Your task to perform on an android device: Open location settings Image 0: 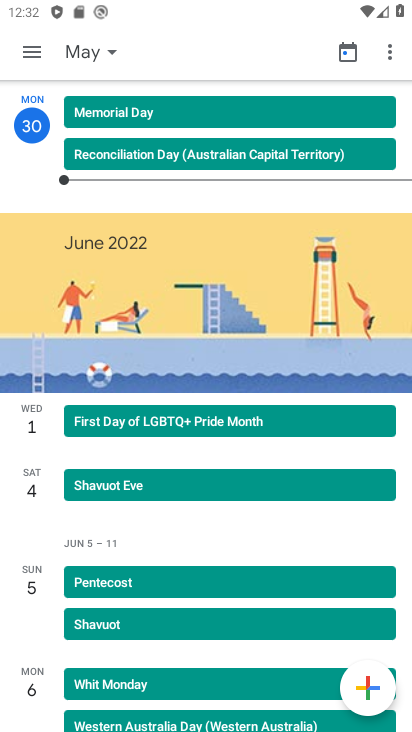
Step 0: press home button
Your task to perform on an android device: Open location settings Image 1: 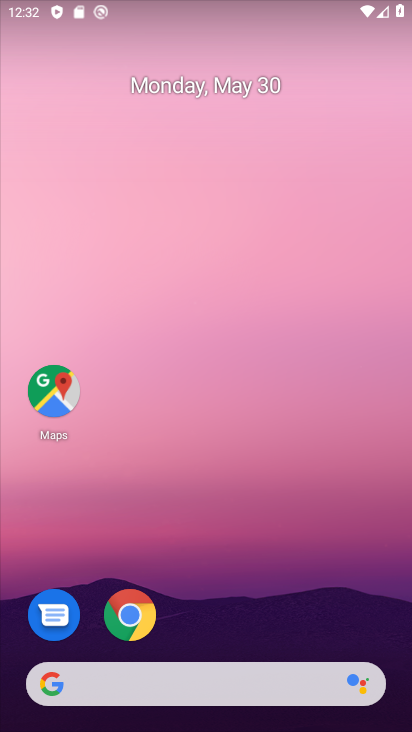
Step 1: drag from (232, 627) to (191, 235)
Your task to perform on an android device: Open location settings Image 2: 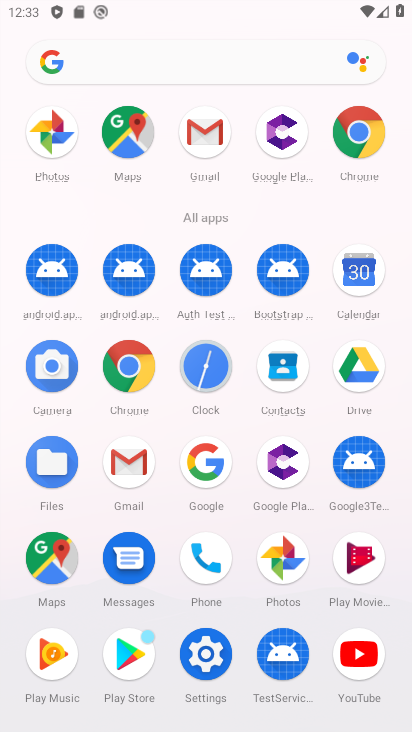
Step 2: click (209, 667)
Your task to perform on an android device: Open location settings Image 3: 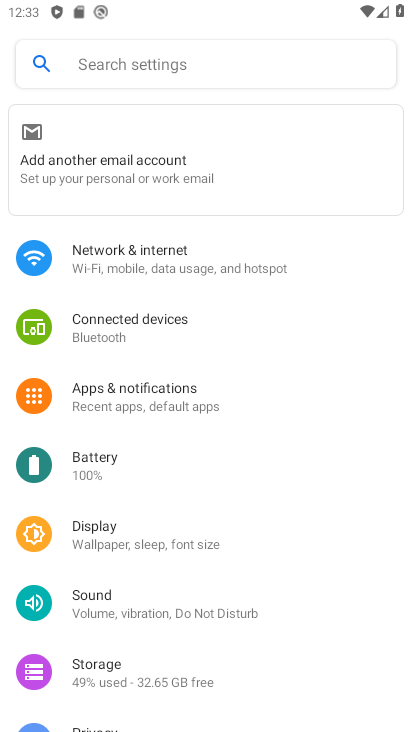
Step 3: drag from (220, 650) to (157, 191)
Your task to perform on an android device: Open location settings Image 4: 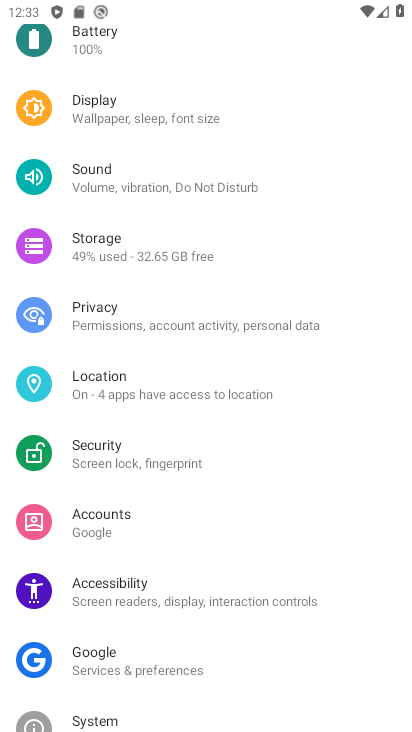
Step 4: click (161, 389)
Your task to perform on an android device: Open location settings Image 5: 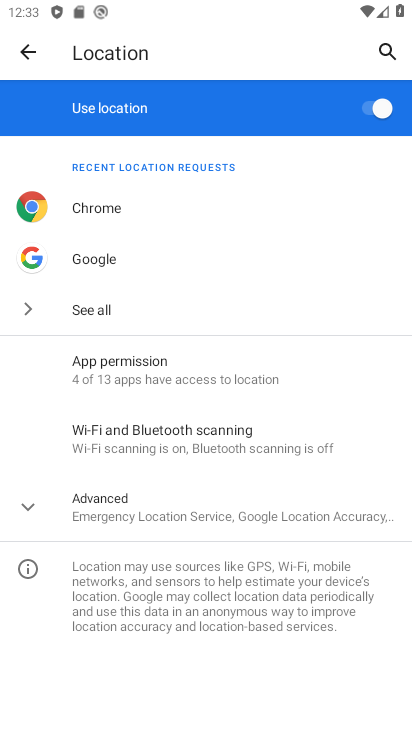
Step 5: task complete